Your task to perform on an android device: What's the weather going to be this weekend? Image 0: 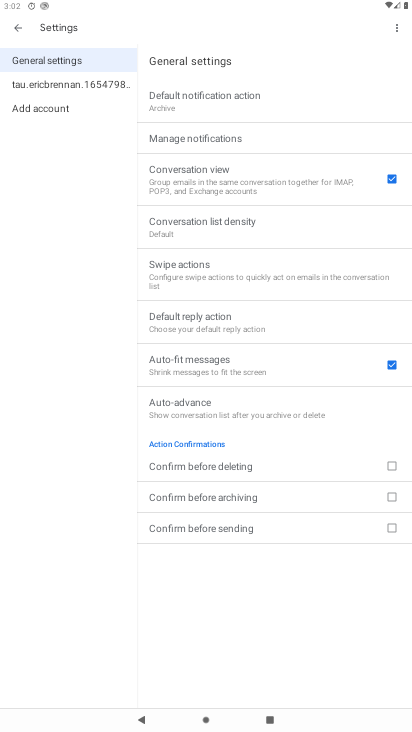
Step 0: press home button
Your task to perform on an android device: What's the weather going to be this weekend? Image 1: 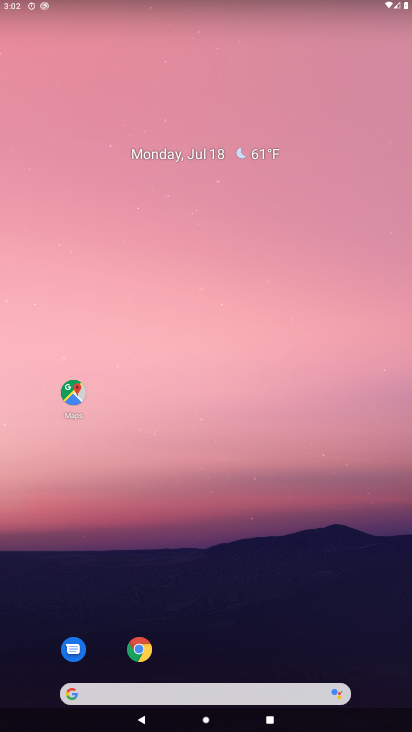
Step 1: click (143, 691)
Your task to perform on an android device: What's the weather going to be this weekend? Image 2: 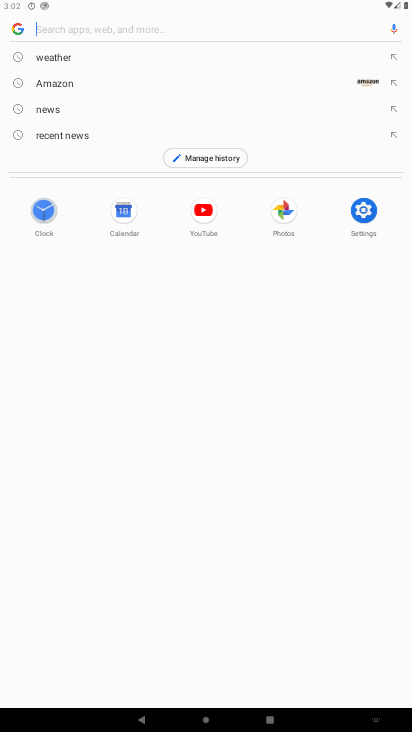
Step 2: type "What's the weather going to be this weekend?"
Your task to perform on an android device: What's the weather going to be this weekend? Image 3: 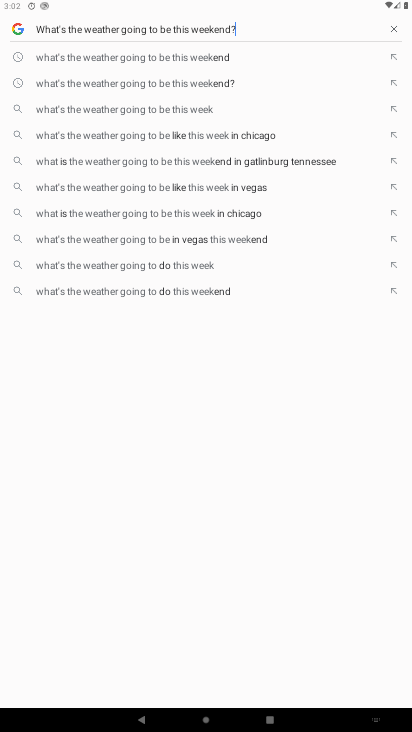
Step 3: type ""
Your task to perform on an android device: What's the weather going to be this weekend? Image 4: 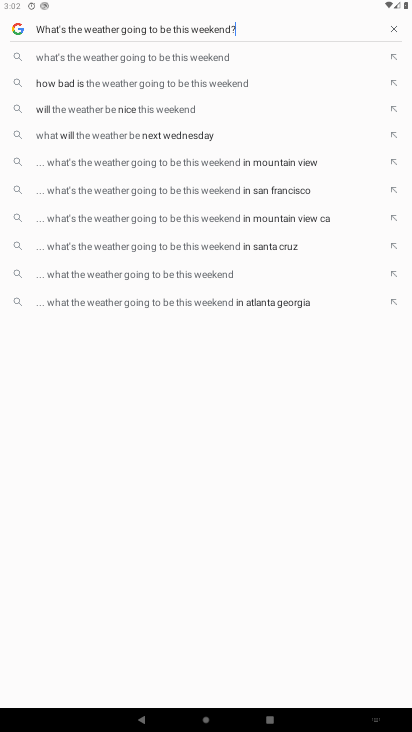
Step 4: click (179, 55)
Your task to perform on an android device: What's the weather going to be this weekend? Image 5: 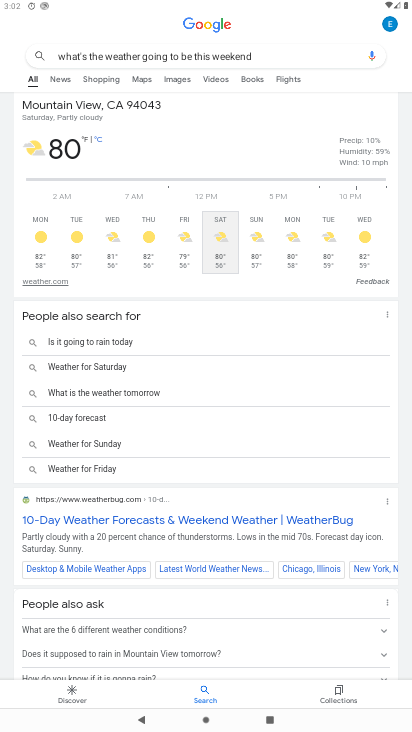
Step 5: task complete